Your task to perform on an android device: turn on sleep mode Image 0: 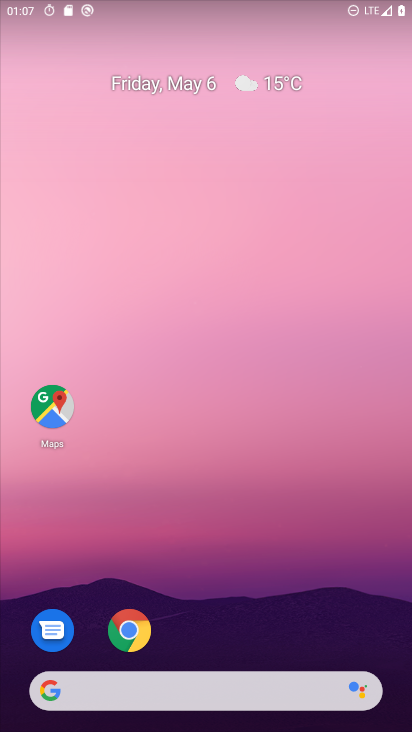
Step 0: drag from (277, 488) to (321, 1)
Your task to perform on an android device: turn on sleep mode Image 1: 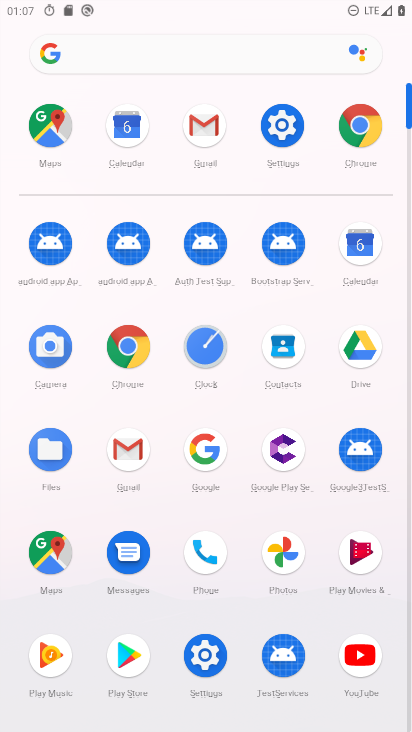
Step 1: click (278, 125)
Your task to perform on an android device: turn on sleep mode Image 2: 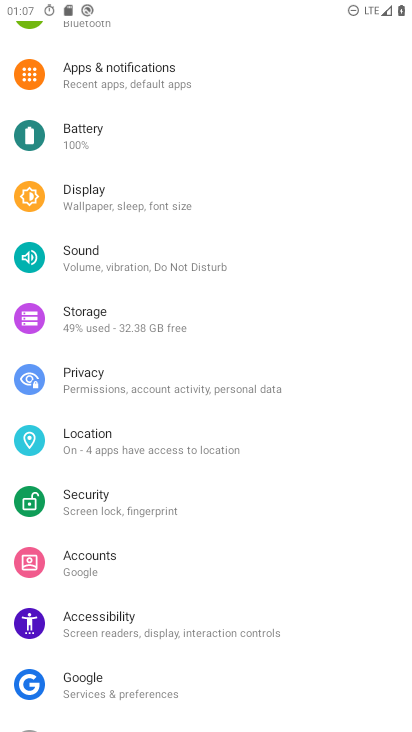
Step 2: drag from (202, 122) to (234, 556)
Your task to perform on an android device: turn on sleep mode Image 3: 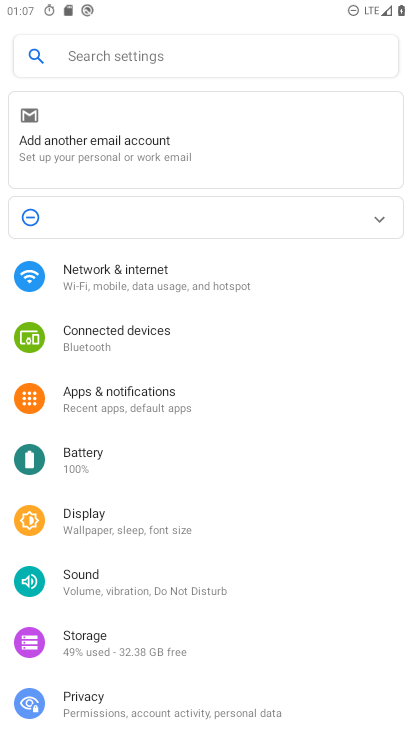
Step 3: drag from (222, 497) to (301, 137)
Your task to perform on an android device: turn on sleep mode Image 4: 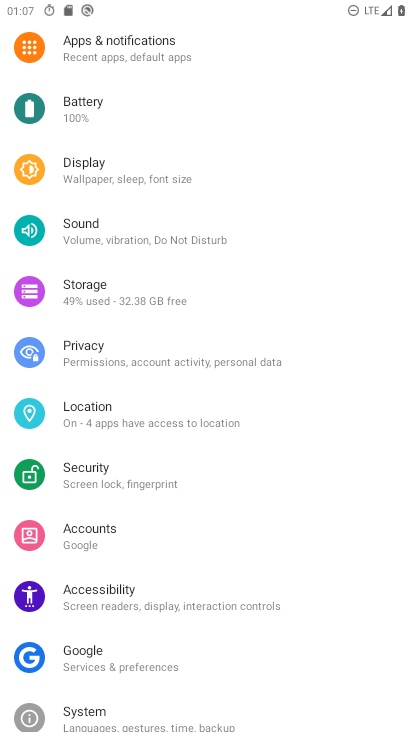
Step 4: click (154, 171)
Your task to perform on an android device: turn on sleep mode Image 5: 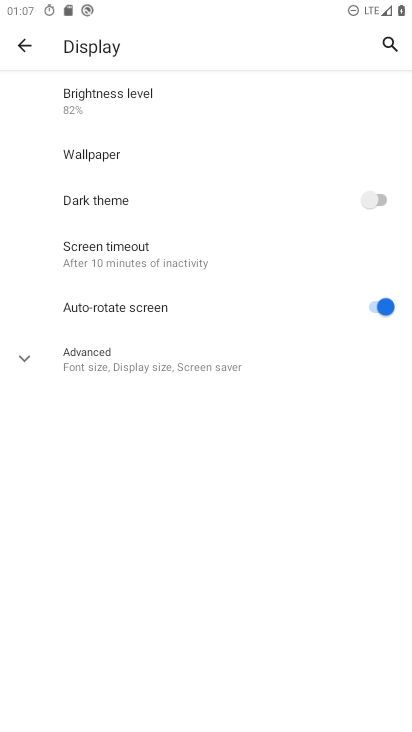
Step 5: click (111, 252)
Your task to perform on an android device: turn on sleep mode Image 6: 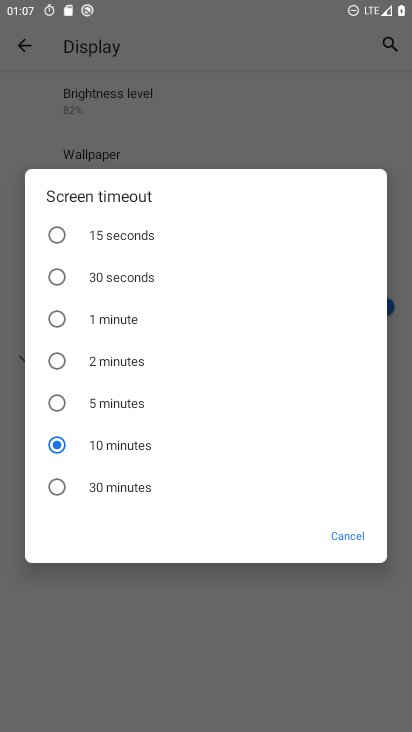
Step 6: task complete